Your task to perform on an android device: change text size in settings app Image 0: 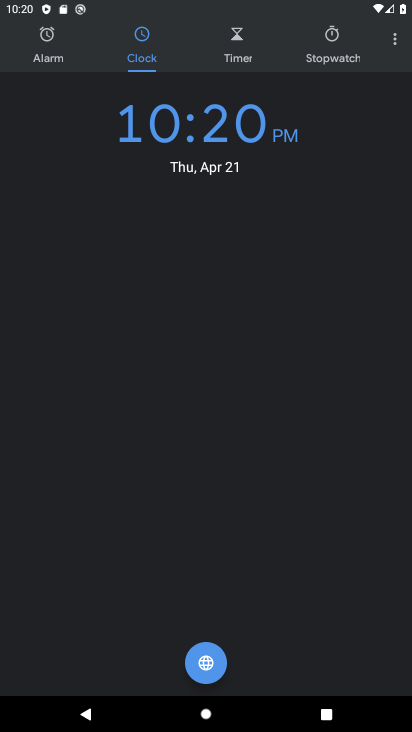
Step 0: press home button
Your task to perform on an android device: change text size in settings app Image 1: 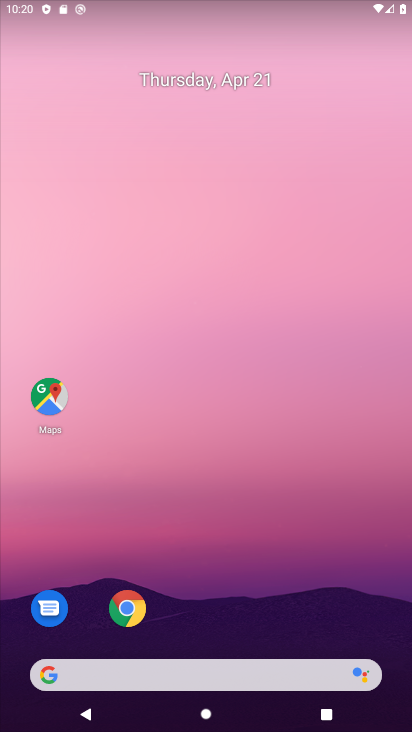
Step 1: drag from (230, 616) to (196, 131)
Your task to perform on an android device: change text size in settings app Image 2: 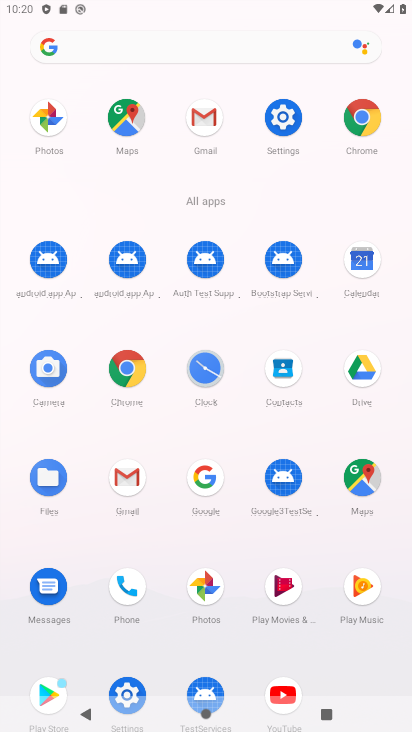
Step 2: click (283, 117)
Your task to perform on an android device: change text size in settings app Image 3: 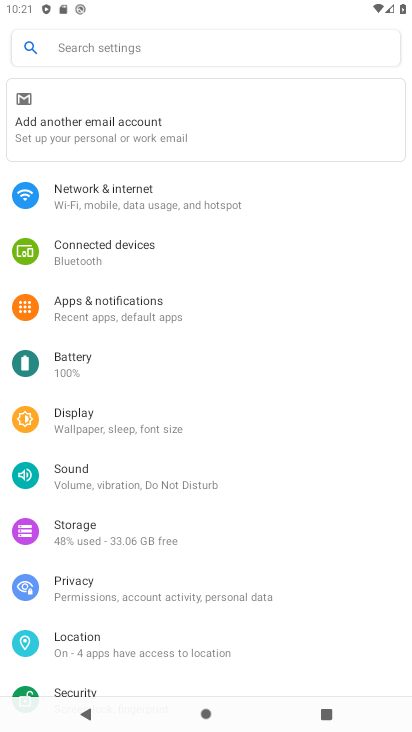
Step 3: click (129, 419)
Your task to perform on an android device: change text size in settings app Image 4: 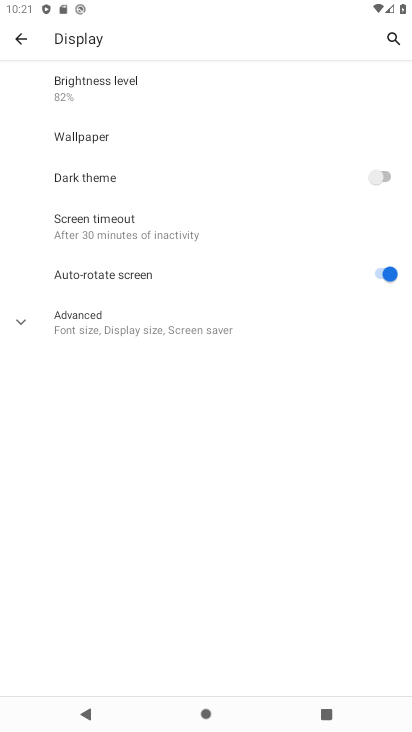
Step 4: click (69, 317)
Your task to perform on an android device: change text size in settings app Image 5: 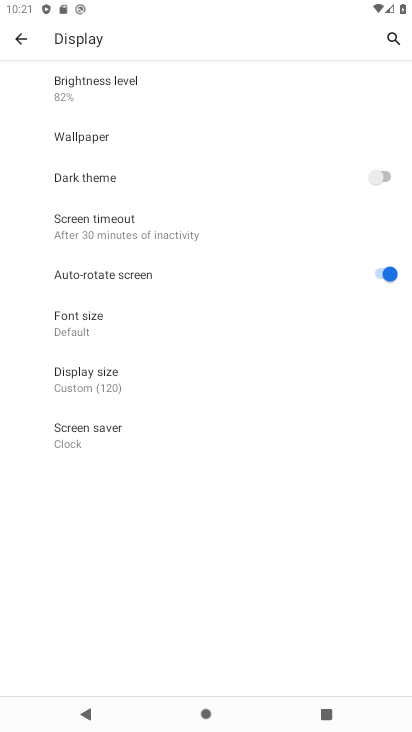
Step 5: click (80, 319)
Your task to perform on an android device: change text size in settings app Image 6: 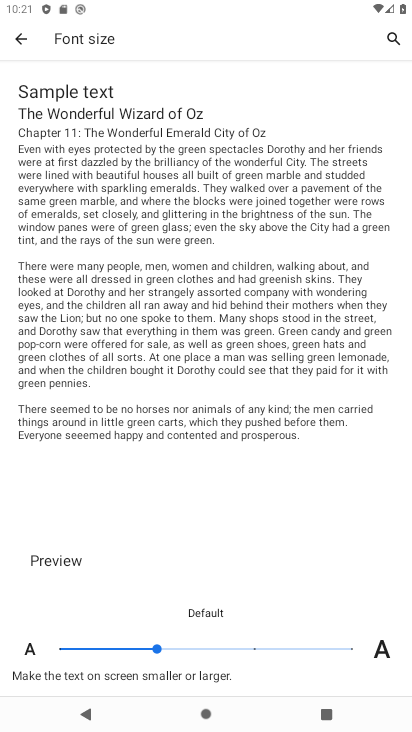
Step 6: click (62, 648)
Your task to perform on an android device: change text size in settings app Image 7: 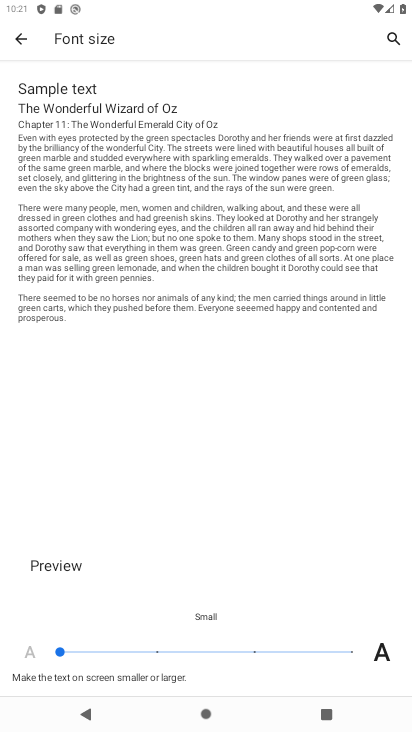
Step 7: task complete